Your task to perform on an android device: Open Chrome and go to settings Image 0: 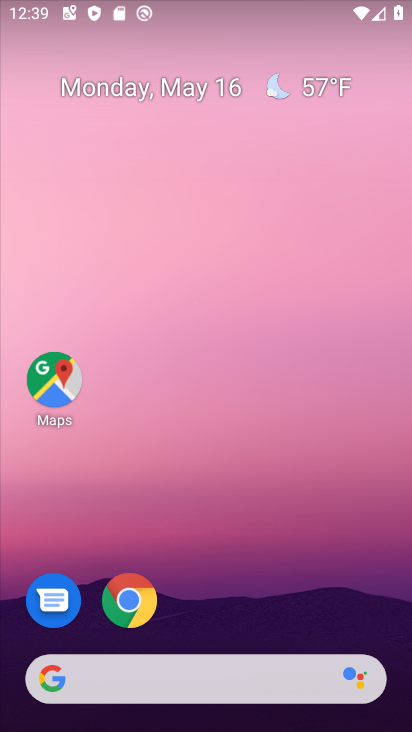
Step 0: drag from (226, 627) to (262, 144)
Your task to perform on an android device: Open Chrome and go to settings Image 1: 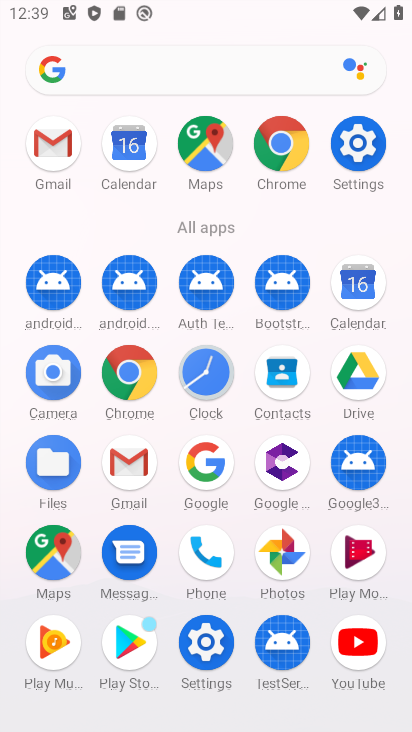
Step 1: click (287, 151)
Your task to perform on an android device: Open Chrome and go to settings Image 2: 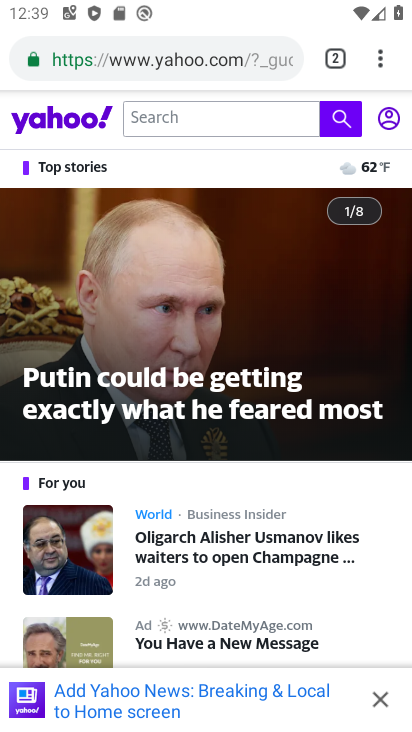
Step 2: click (377, 52)
Your task to perform on an android device: Open Chrome and go to settings Image 3: 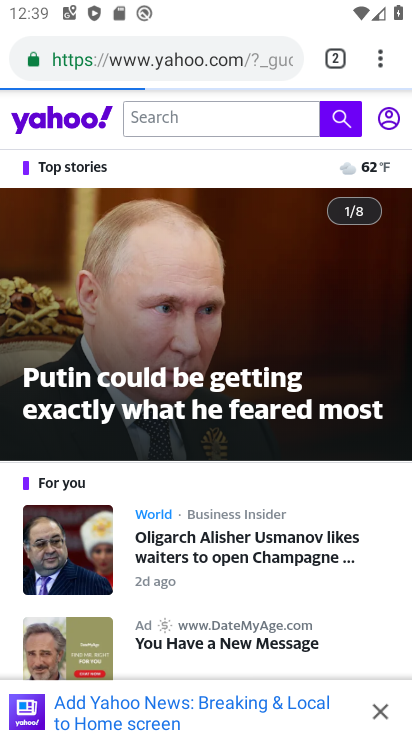
Step 3: task complete